Your task to perform on an android device: open wifi settings Image 0: 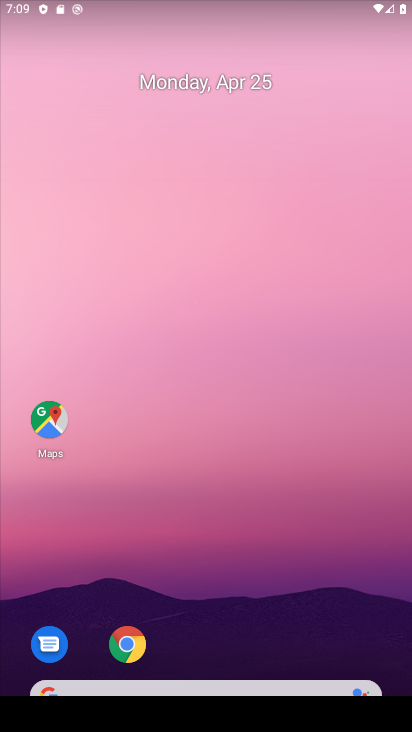
Step 0: drag from (298, 556) to (296, 30)
Your task to perform on an android device: open wifi settings Image 1: 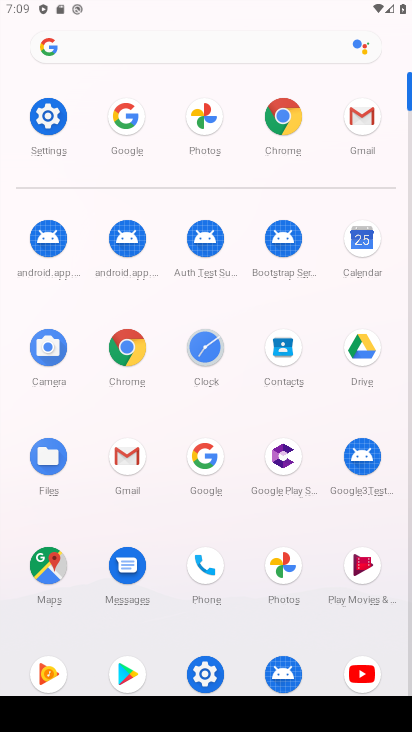
Step 1: click (46, 111)
Your task to perform on an android device: open wifi settings Image 2: 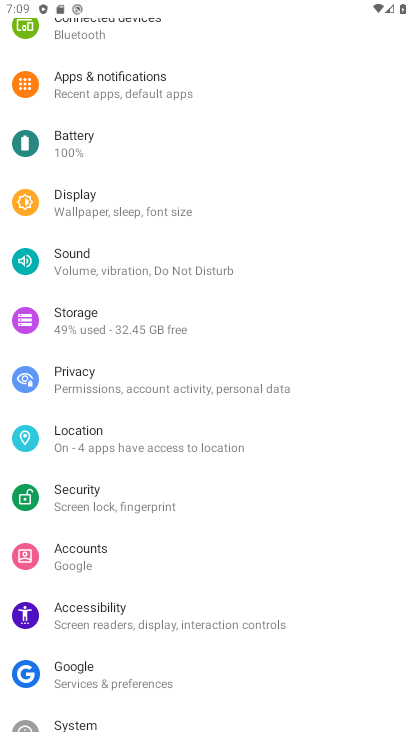
Step 2: drag from (259, 139) to (223, 546)
Your task to perform on an android device: open wifi settings Image 3: 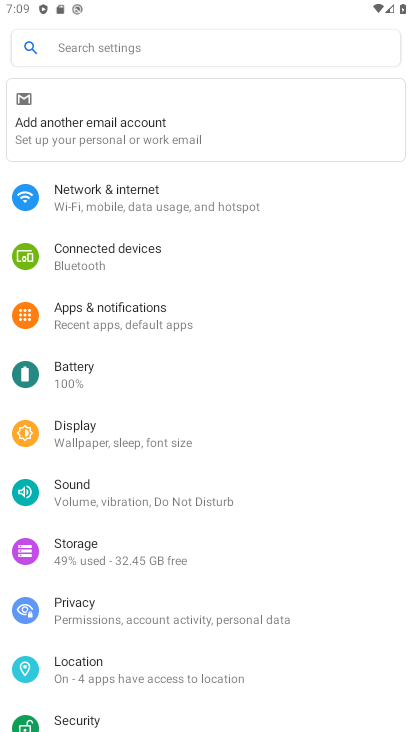
Step 3: click (181, 188)
Your task to perform on an android device: open wifi settings Image 4: 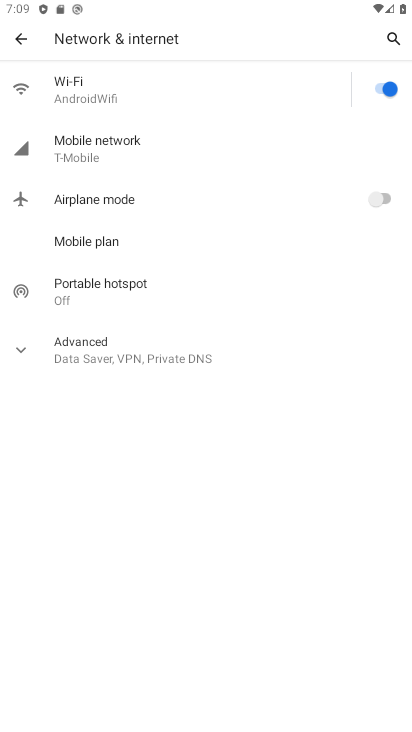
Step 4: click (108, 93)
Your task to perform on an android device: open wifi settings Image 5: 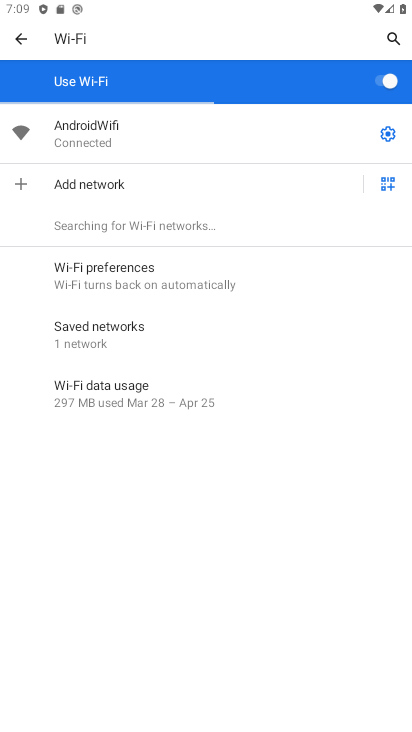
Step 5: task complete